Your task to perform on an android device: Open the calendar app, open the side menu, and click the "Day" option Image 0: 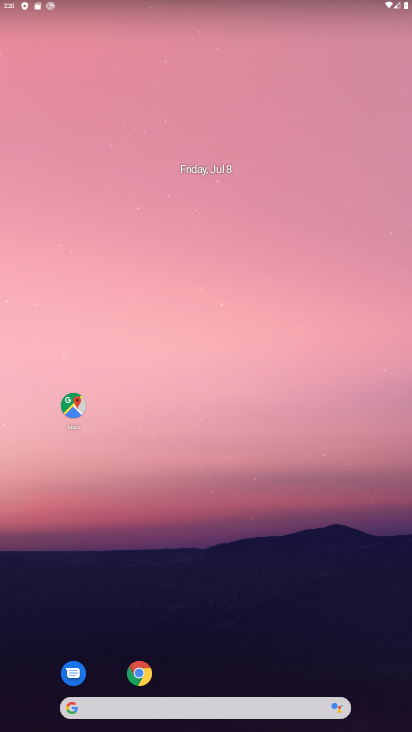
Step 0: press home button
Your task to perform on an android device: Open the calendar app, open the side menu, and click the "Day" option Image 1: 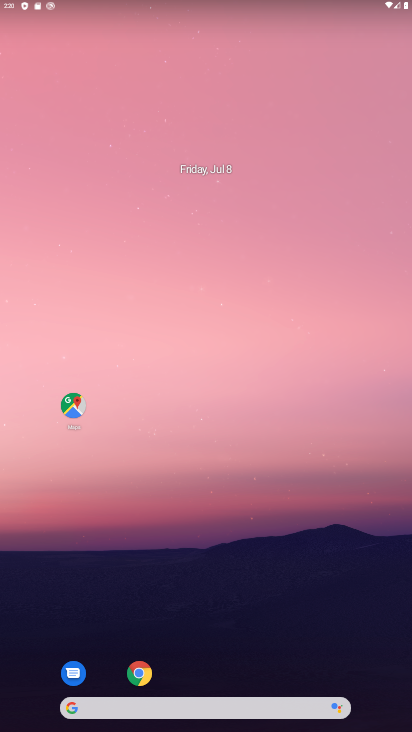
Step 1: click (347, 164)
Your task to perform on an android device: Open the calendar app, open the side menu, and click the "Day" option Image 2: 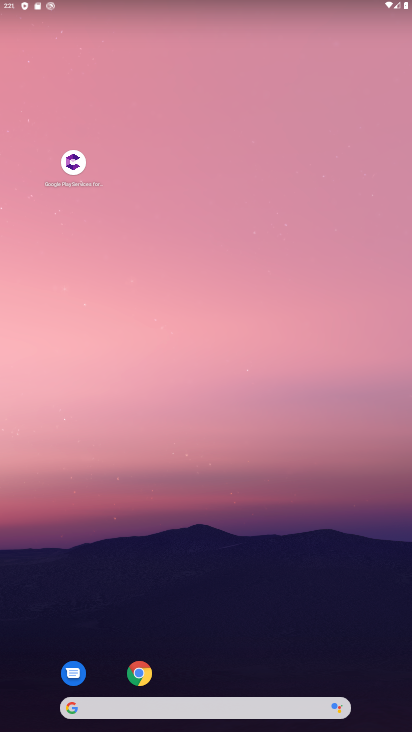
Step 2: drag from (233, 630) to (241, 212)
Your task to perform on an android device: Open the calendar app, open the side menu, and click the "Day" option Image 3: 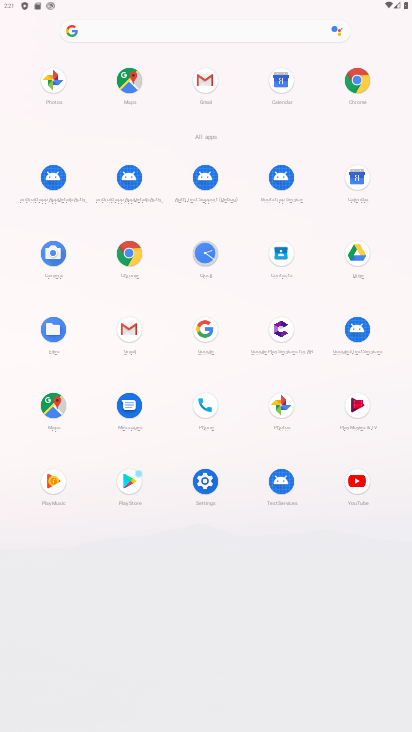
Step 3: click (343, 171)
Your task to perform on an android device: Open the calendar app, open the side menu, and click the "Day" option Image 4: 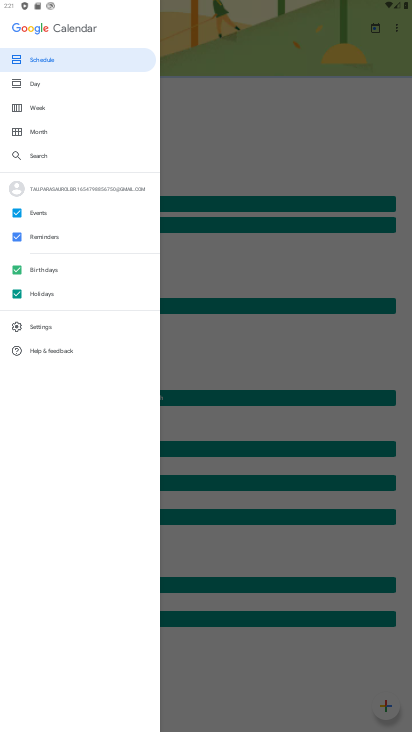
Step 4: click (39, 85)
Your task to perform on an android device: Open the calendar app, open the side menu, and click the "Day" option Image 5: 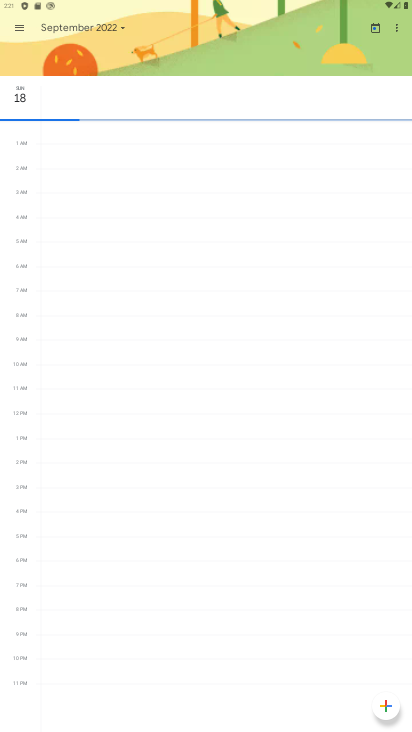
Step 5: task complete